Your task to perform on an android device: move a message to another label in the gmail app Image 0: 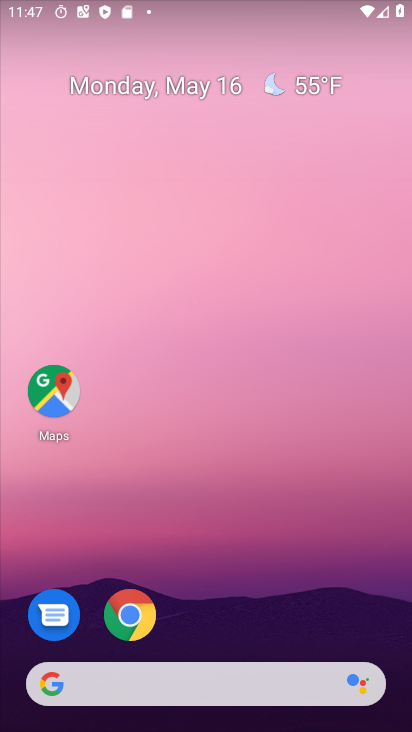
Step 0: drag from (237, 510) to (281, 60)
Your task to perform on an android device: move a message to another label in the gmail app Image 1: 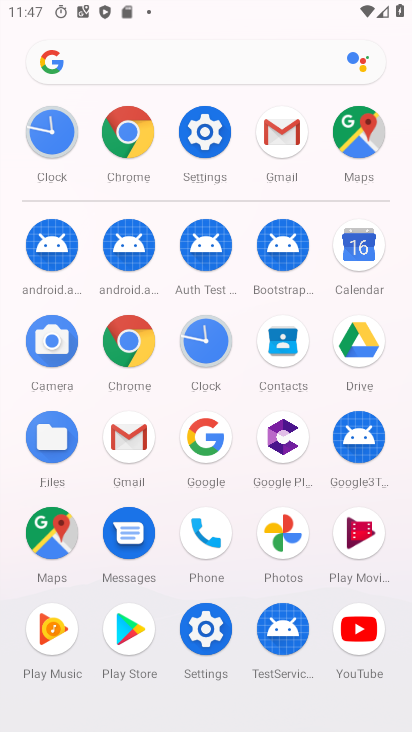
Step 1: click (276, 130)
Your task to perform on an android device: move a message to another label in the gmail app Image 2: 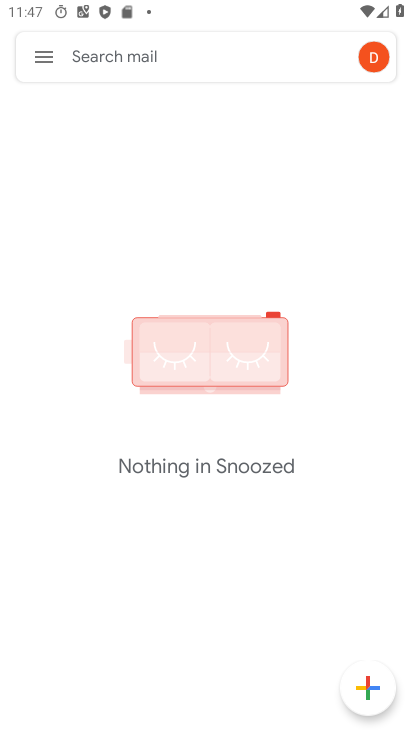
Step 2: task complete